Your task to perform on an android device: see tabs open on other devices in the chrome app Image 0: 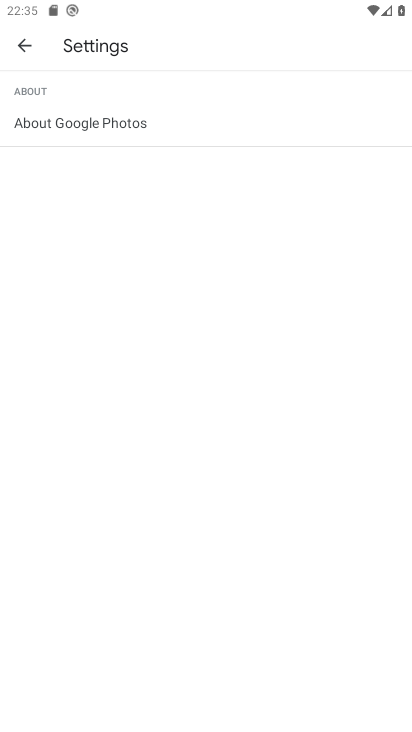
Step 0: drag from (179, 579) to (262, 381)
Your task to perform on an android device: see tabs open on other devices in the chrome app Image 1: 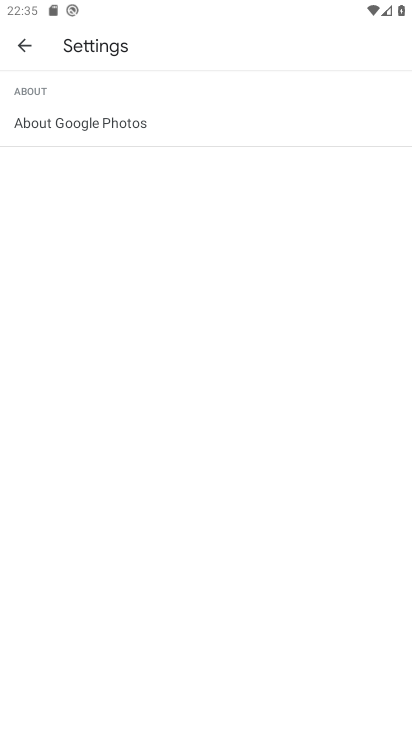
Step 1: drag from (194, 462) to (212, 366)
Your task to perform on an android device: see tabs open on other devices in the chrome app Image 2: 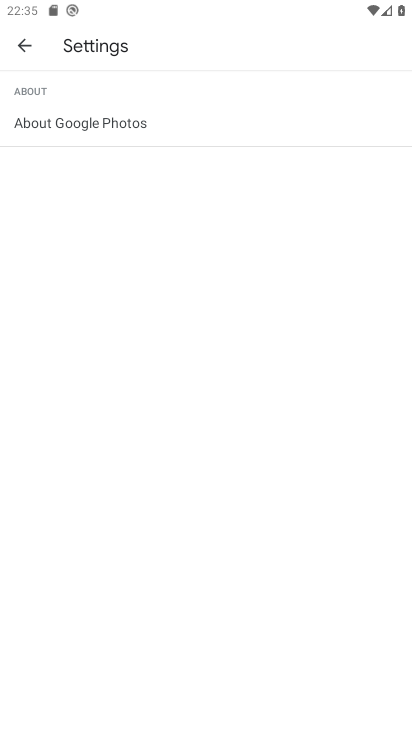
Step 2: press home button
Your task to perform on an android device: see tabs open on other devices in the chrome app Image 3: 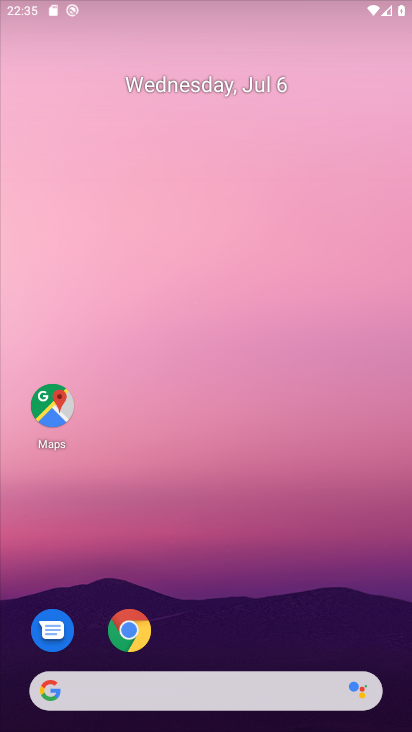
Step 3: drag from (141, 587) to (198, 60)
Your task to perform on an android device: see tabs open on other devices in the chrome app Image 4: 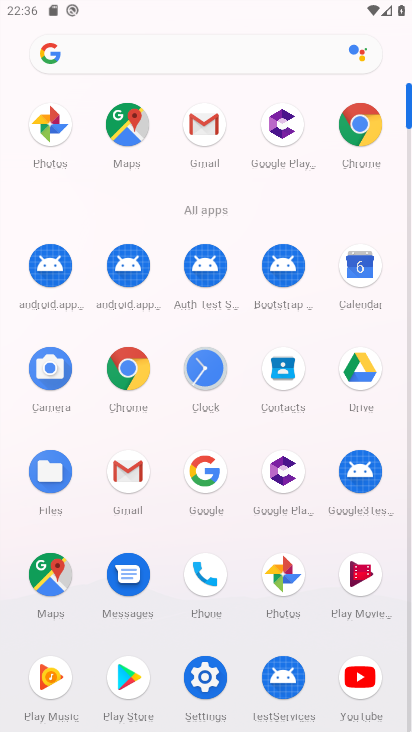
Step 4: click (357, 119)
Your task to perform on an android device: see tabs open on other devices in the chrome app Image 5: 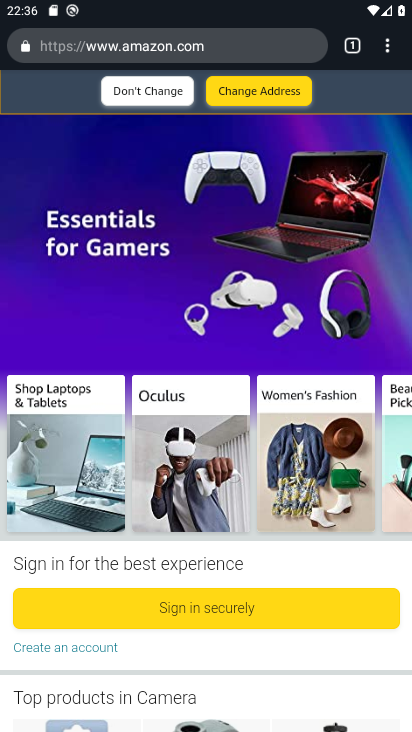
Step 5: drag from (280, 528) to (327, 227)
Your task to perform on an android device: see tabs open on other devices in the chrome app Image 6: 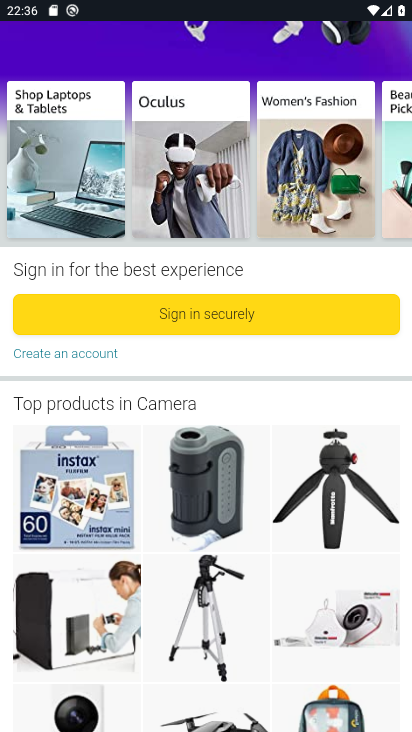
Step 6: drag from (330, 65) to (343, 607)
Your task to perform on an android device: see tabs open on other devices in the chrome app Image 7: 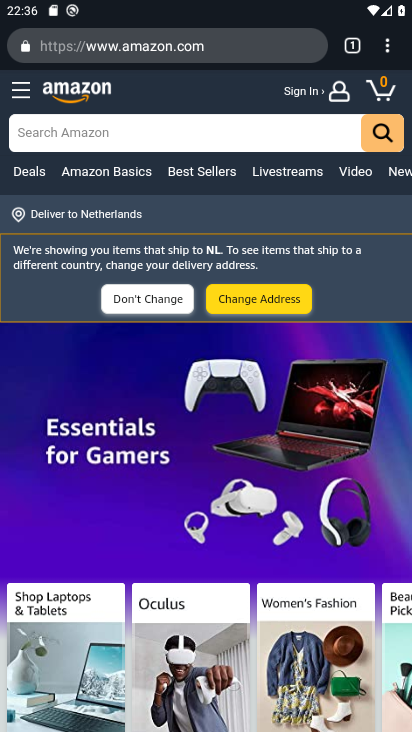
Step 7: click (384, 44)
Your task to perform on an android device: see tabs open on other devices in the chrome app Image 8: 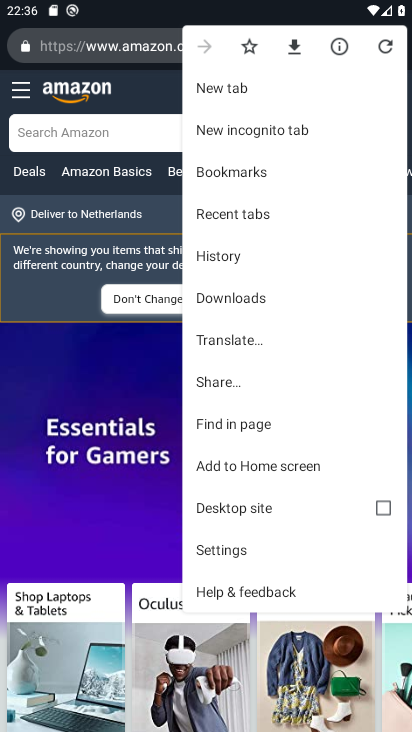
Step 8: drag from (280, 510) to (325, 192)
Your task to perform on an android device: see tabs open on other devices in the chrome app Image 9: 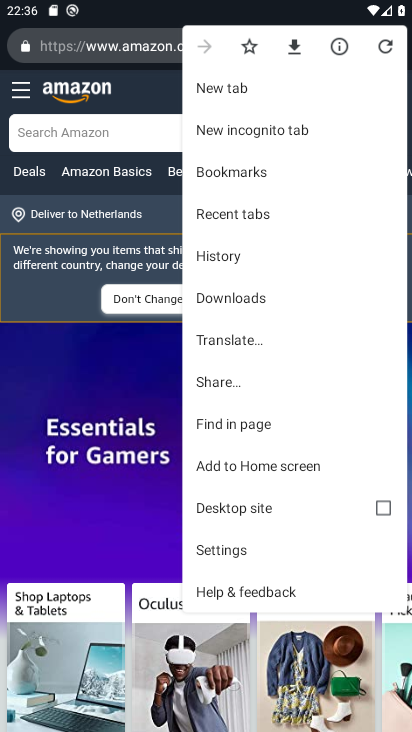
Step 9: click (256, 209)
Your task to perform on an android device: see tabs open on other devices in the chrome app Image 10: 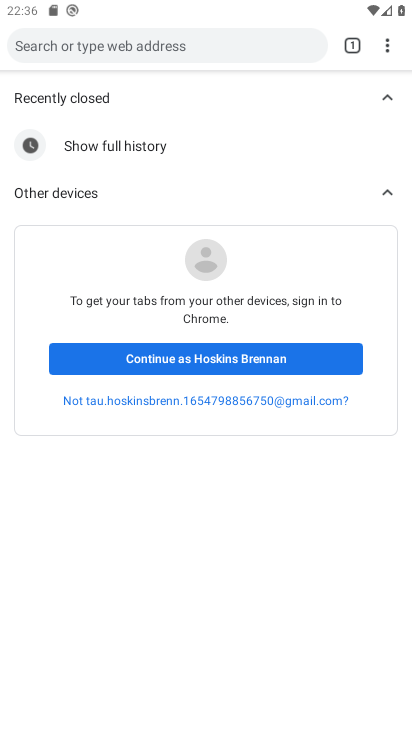
Step 10: task complete